Your task to perform on an android device: see tabs open on other devices in the chrome app Image 0: 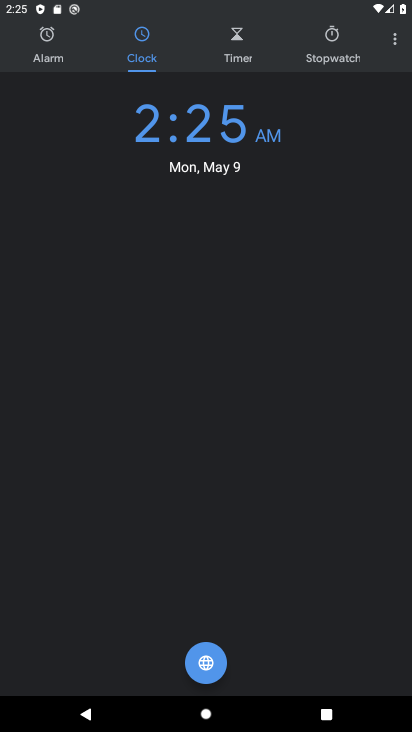
Step 0: press home button
Your task to perform on an android device: see tabs open on other devices in the chrome app Image 1: 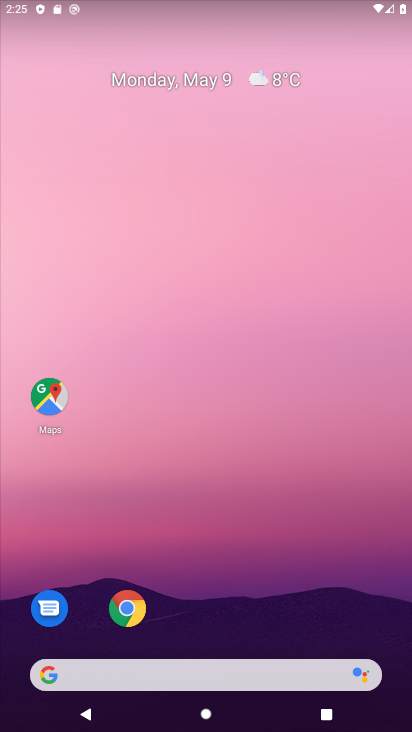
Step 1: click (127, 604)
Your task to perform on an android device: see tabs open on other devices in the chrome app Image 2: 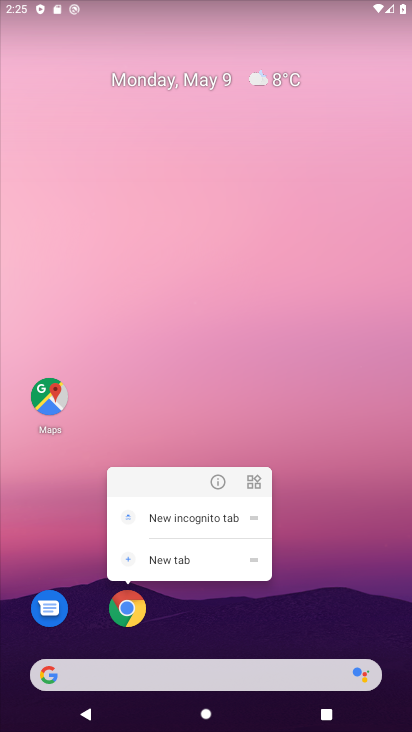
Step 2: click (128, 603)
Your task to perform on an android device: see tabs open on other devices in the chrome app Image 3: 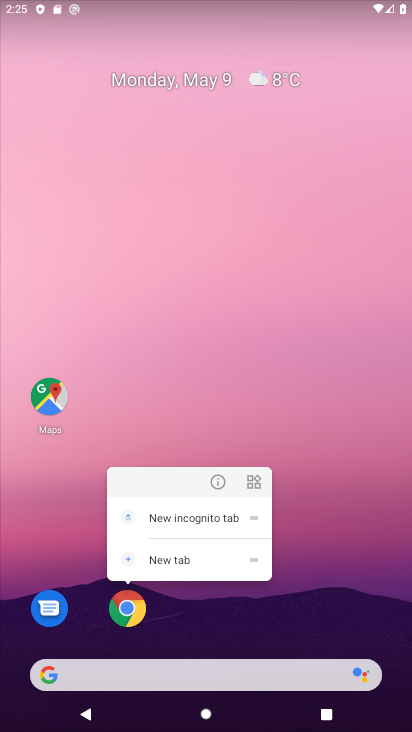
Step 3: click (123, 610)
Your task to perform on an android device: see tabs open on other devices in the chrome app Image 4: 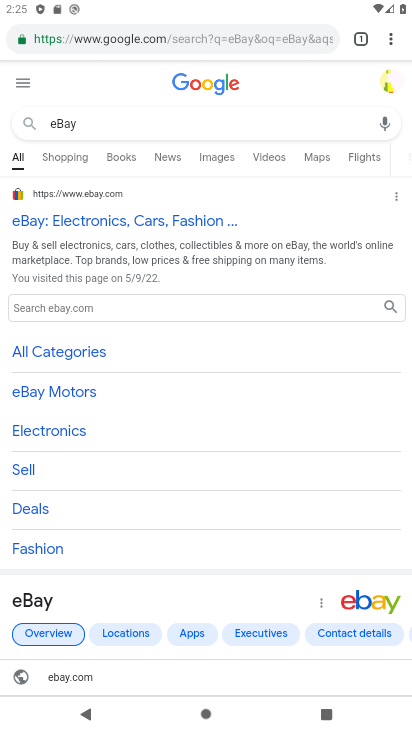
Step 4: click (357, 41)
Your task to perform on an android device: see tabs open on other devices in the chrome app Image 5: 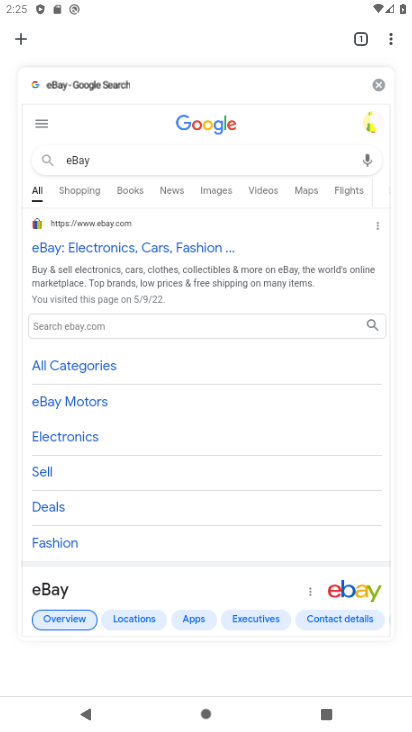
Step 5: task complete